Your task to perform on an android device: turn off improve location accuracy Image 0: 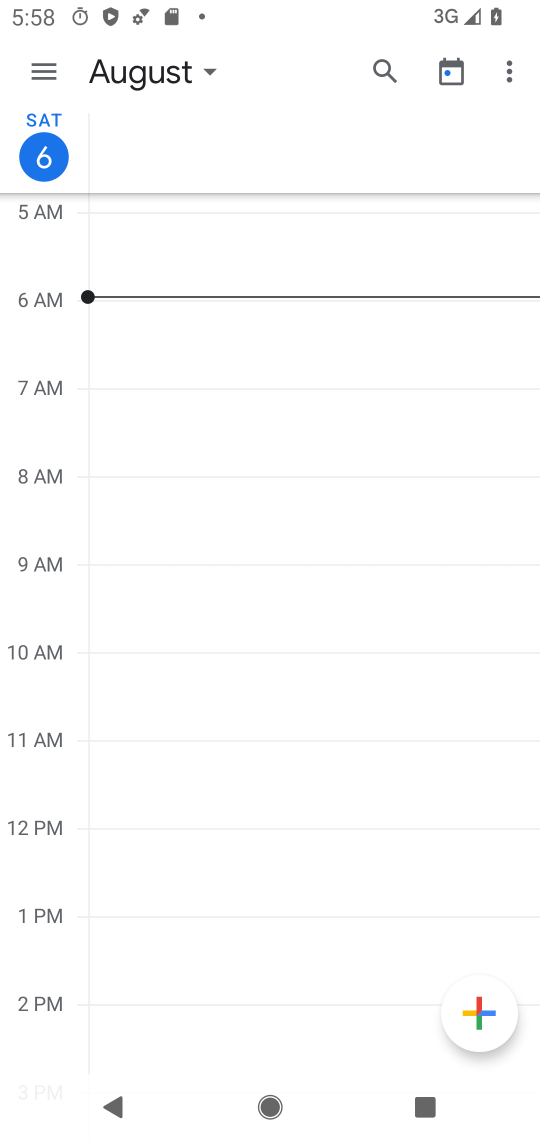
Step 0: press home button
Your task to perform on an android device: turn off improve location accuracy Image 1: 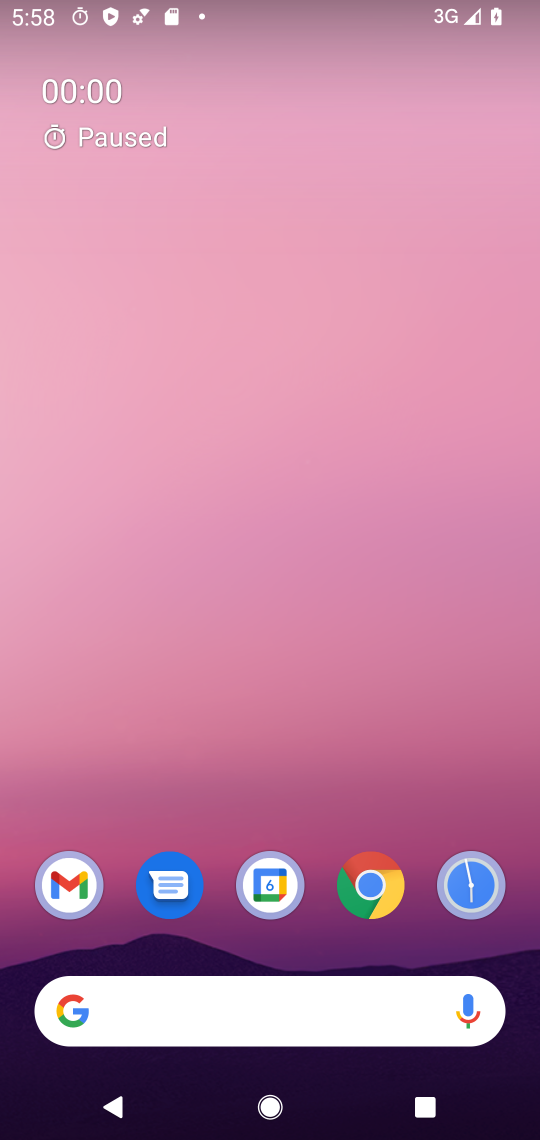
Step 1: drag from (403, 890) to (202, 15)
Your task to perform on an android device: turn off improve location accuracy Image 2: 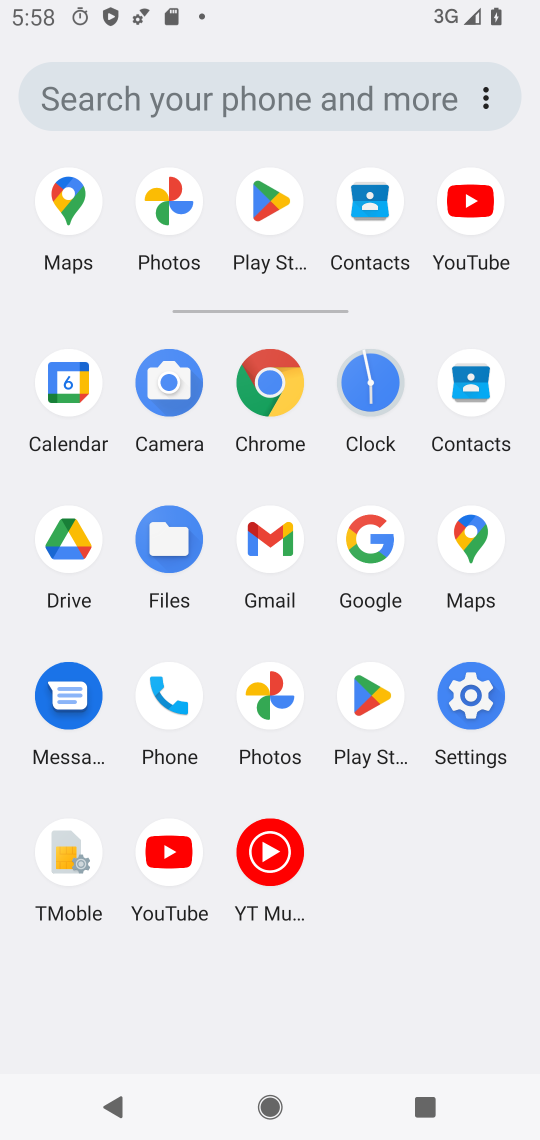
Step 2: click (453, 699)
Your task to perform on an android device: turn off improve location accuracy Image 3: 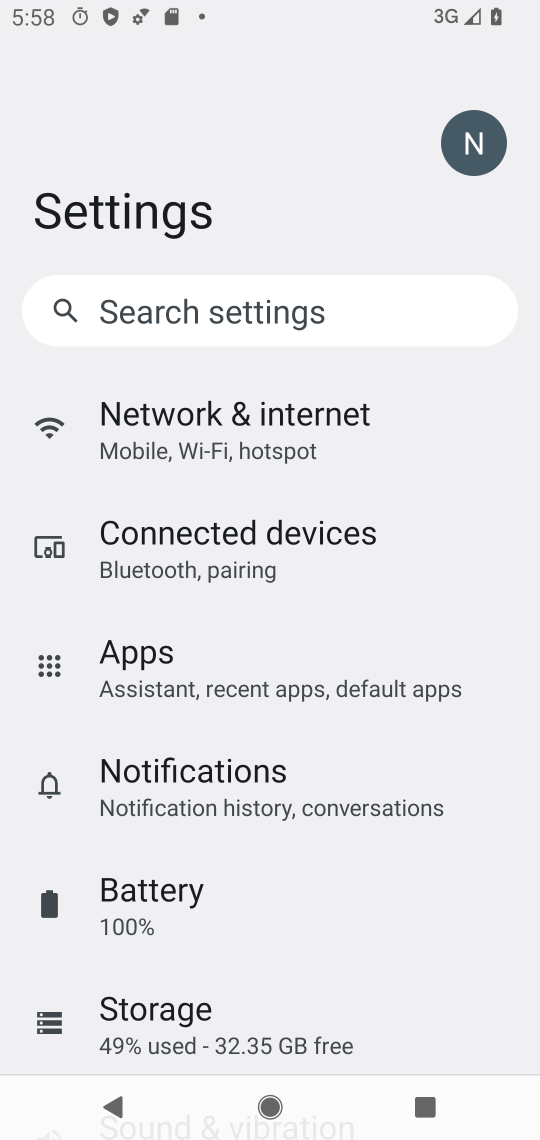
Step 3: drag from (132, 1003) to (211, 352)
Your task to perform on an android device: turn off improve location accuracy Image 4: 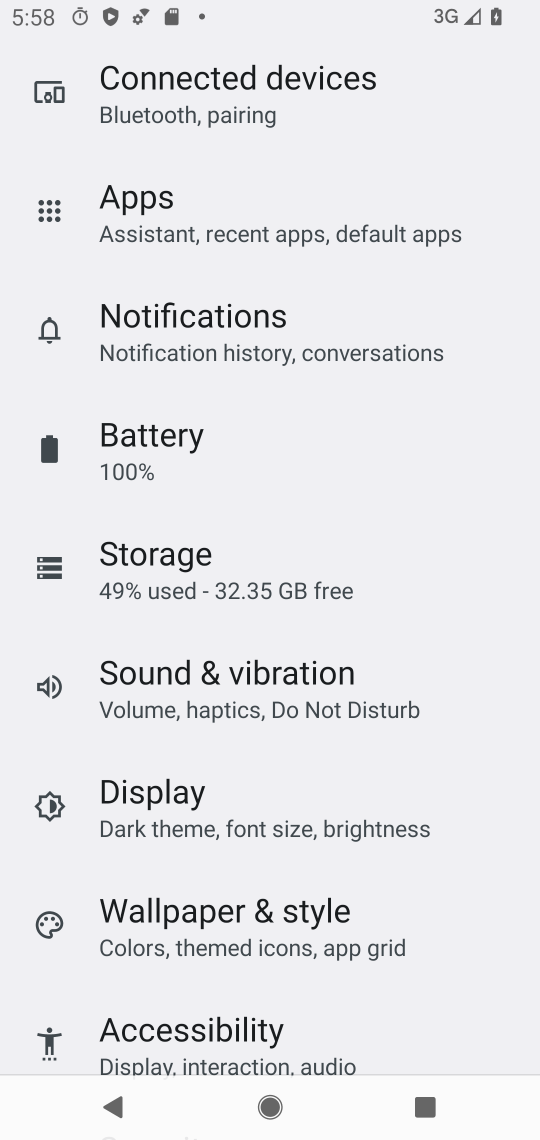
Step 4: drag from (267, 1026) to (251, 233)
Your task to perform on an android device: turn off improve location accuracy Image 5: 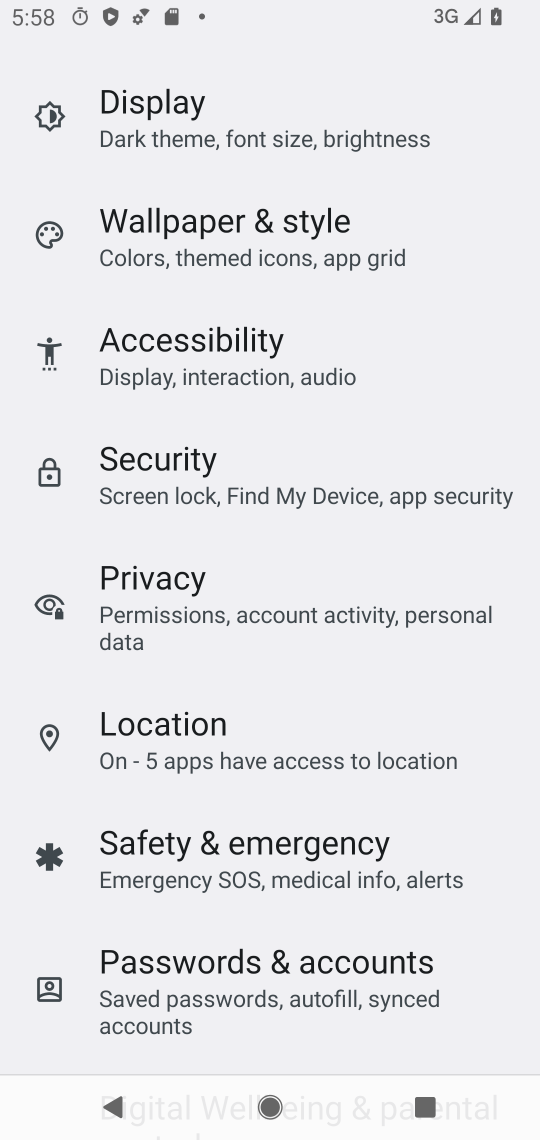
Step 5: click (192, 759)
Your task to perform on an android device: turn off improve location accuracy Image 6: 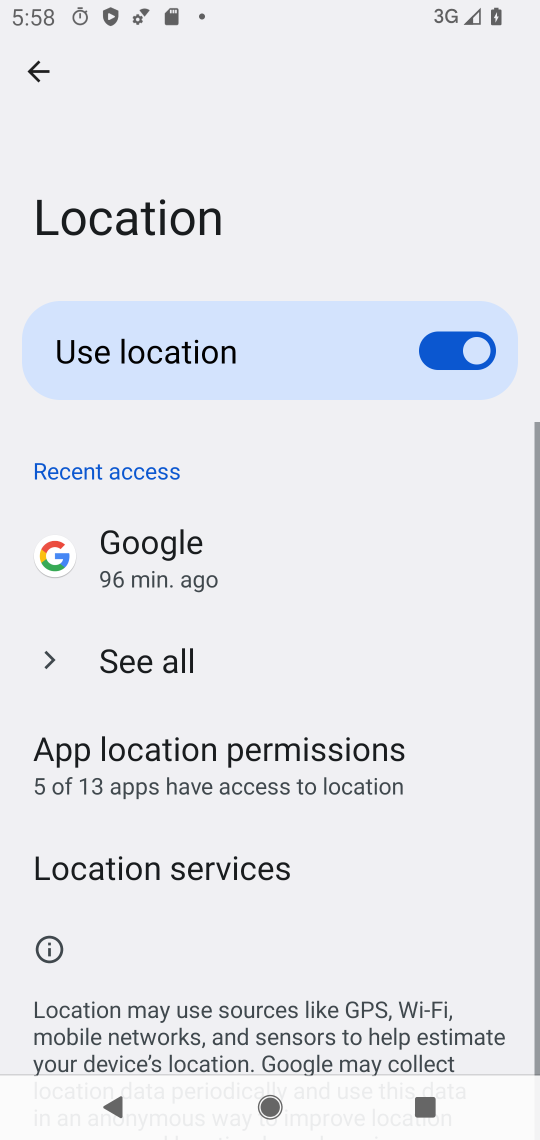
Step 6: click (125, 885)
Your task to perform on an android device: turn off improve location accuracy Image 7: 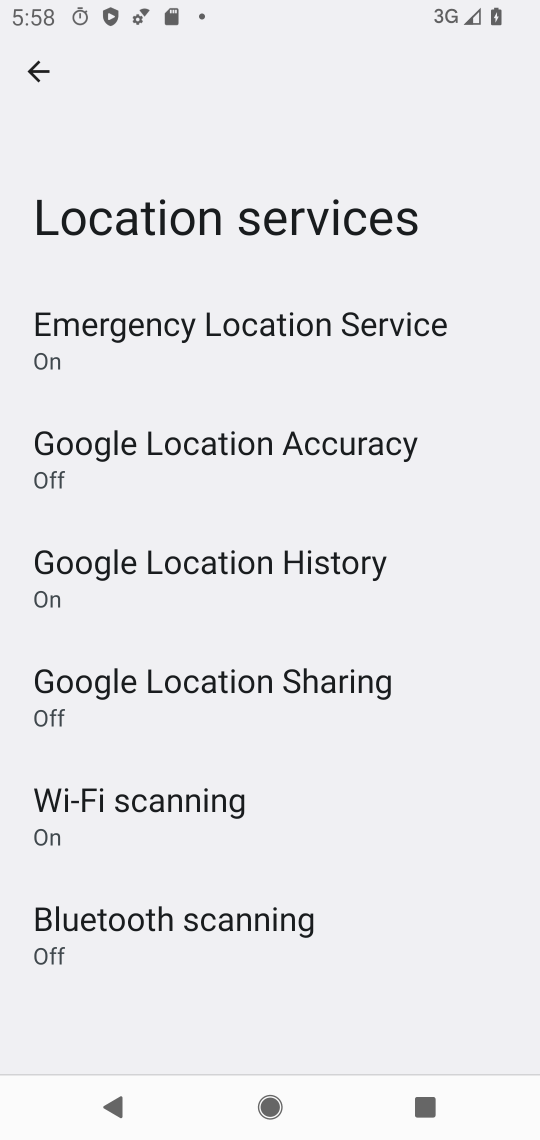
Step 7: click (278, 444)
Your task to perform on an android device: turn off improve location accuracy Image 8: 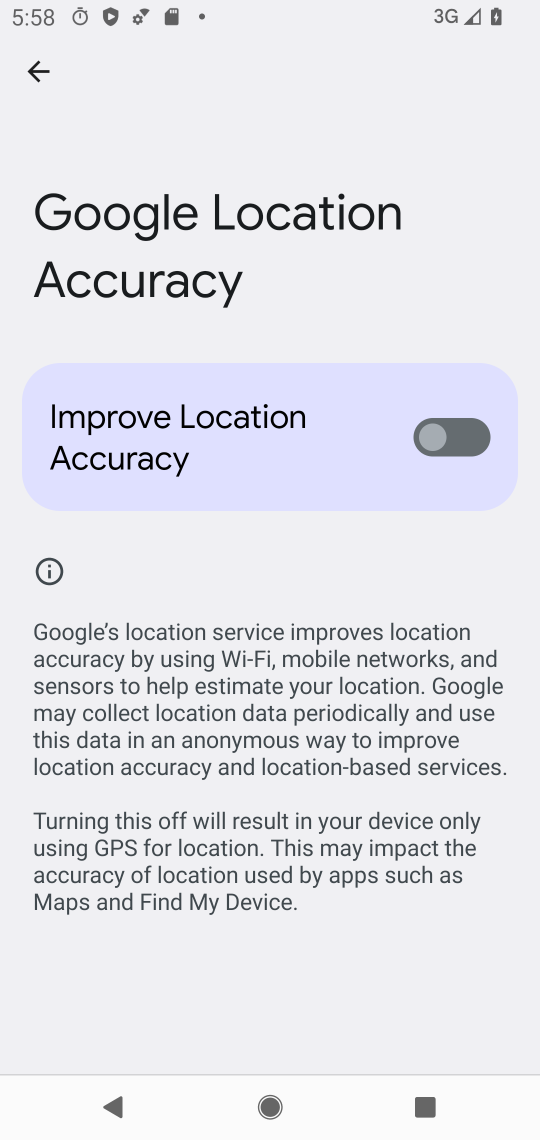
Step 8: task complete